Your task to perform on an android device: turn off airplane mode Image 0: 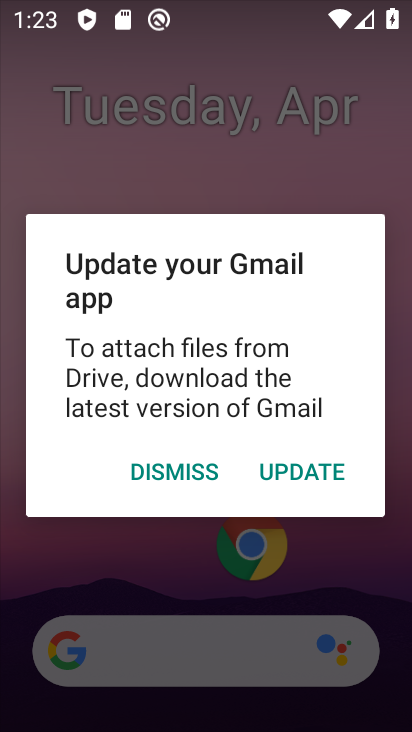
Step 0: press home button
Your task to perform on an android device: turn off airplane mode Image 1: 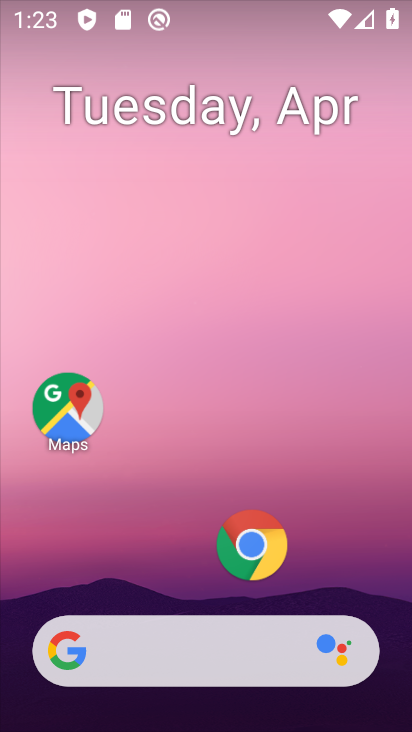
Step 1: drag from (172, 523) to (240, 188)
Your task to perform on an android device: turn off airplane mode Image 2: 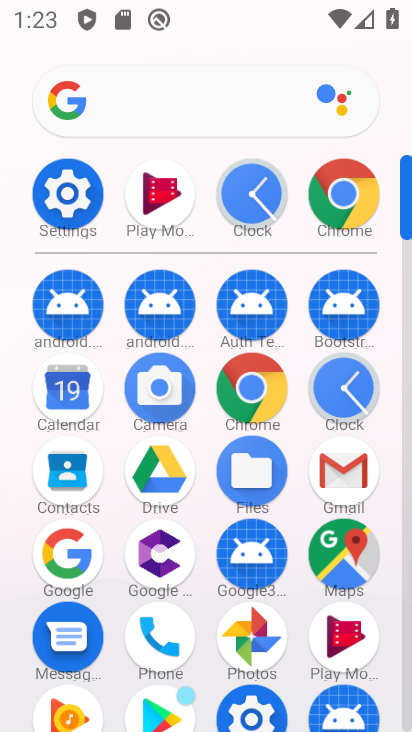
Step 2: click (66, 196)
Your task to perform on an android device: turn off airplane mode Image 3: 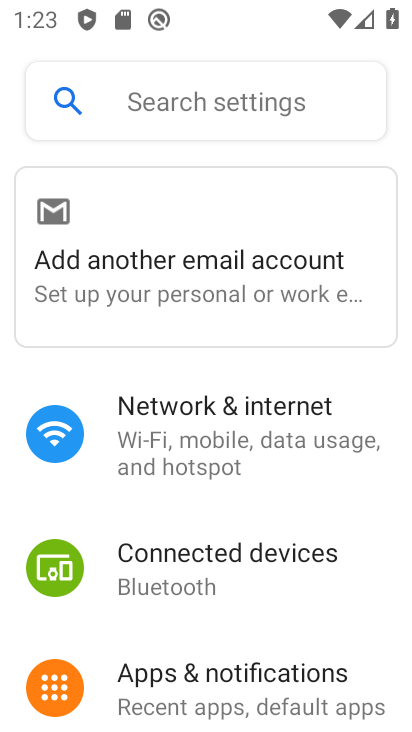
Step 3: click (179, 438)
Your task to perform on an android device: turn off airplane mode Image 4: 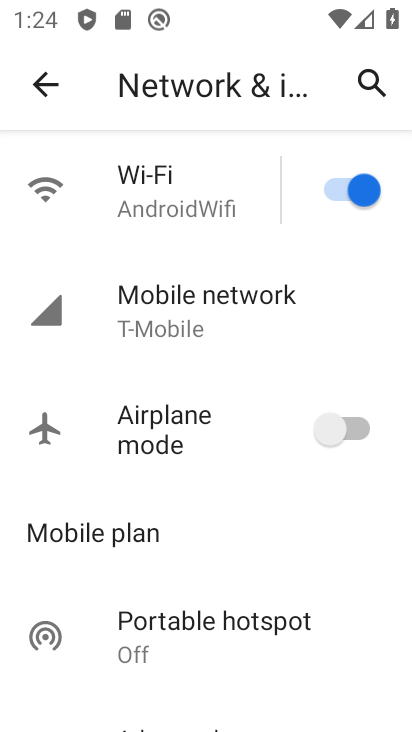
Step 4: task complete